Your task to perform on an android device: Check the news Image 0: 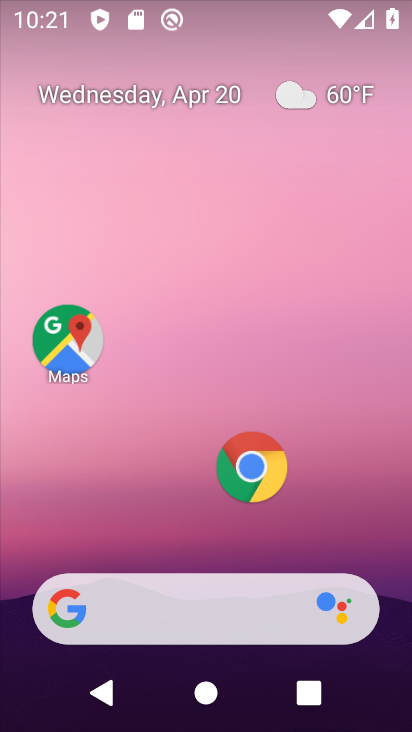
Step 0: drag from (375, 436) to (388, 13)
Your task to perform on an android device: Check the news Image 1: 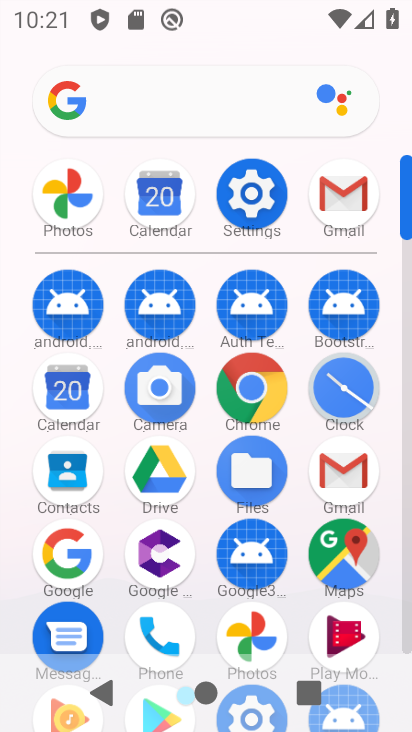
Step 1: click (150, 110)
Your task to perform on an android device: Check the news Image 2: 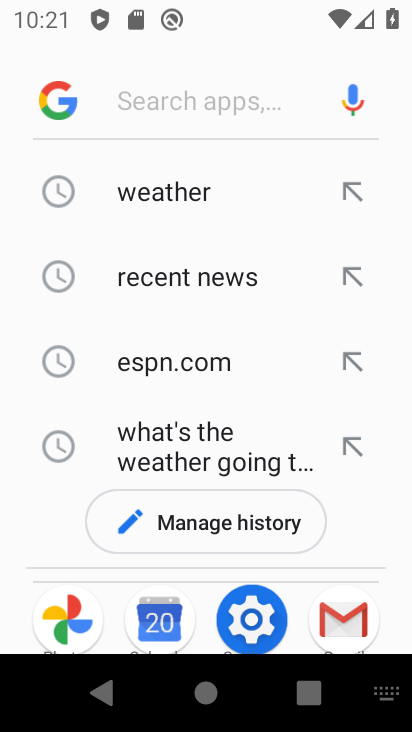
Step 2: type "news"
Your task to perform on an android device: Check the news Image 3: 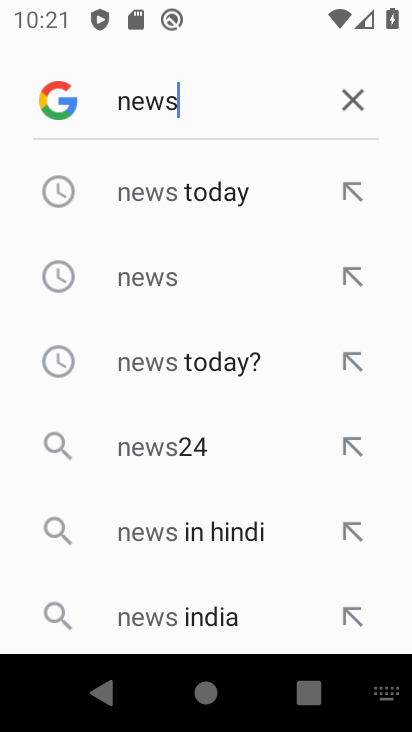
Step 3: click (197, 258)
Your task to perform on an android device: Check the news Image 4: 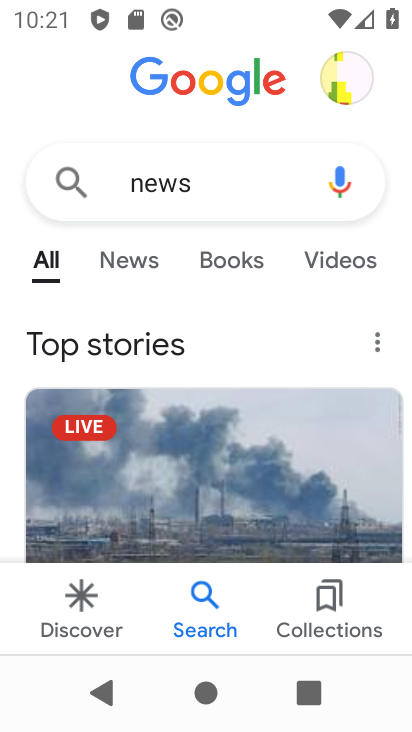
Step 4: click (135, 243)
Your task to perform on an android device: Check the news Image 5: 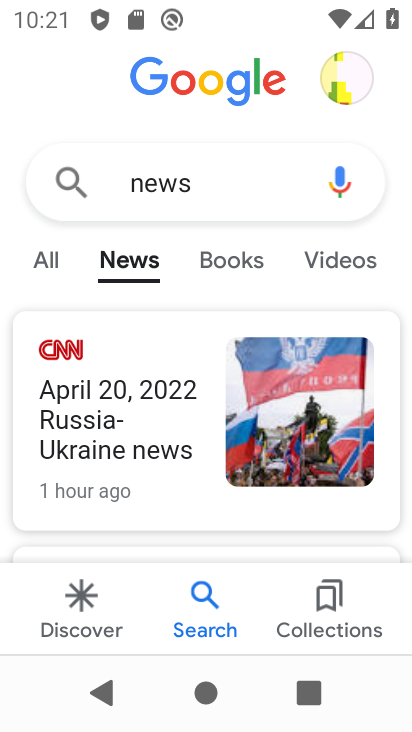
Step 5: task complete